Your task to perform on an android device: What's on my calendar tomorrow? Image 0: 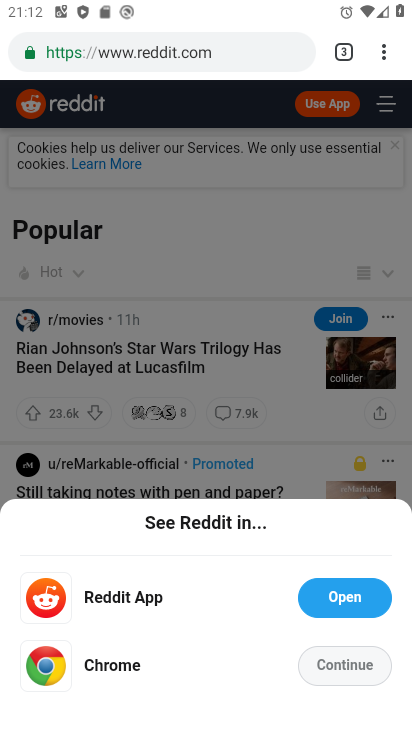
Step 0: press home button
Your task to perform on an android device: What's on my calendar tomorrow? Image 1: 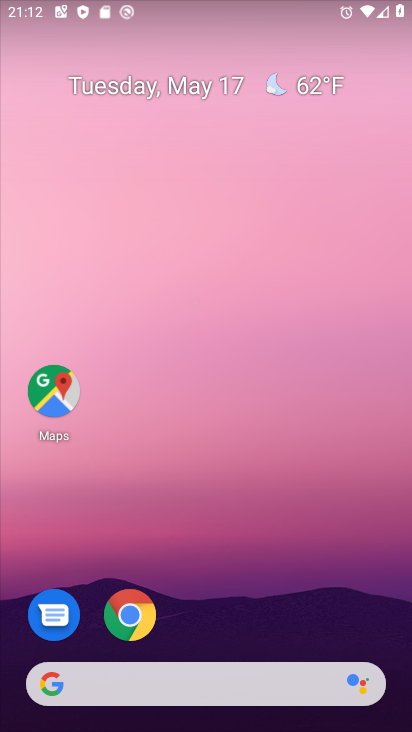
Step 1: drag from (255, 556) to (315, 42)
Your task to perform on an android device: What's on my calendar tomorrow? Image 2: 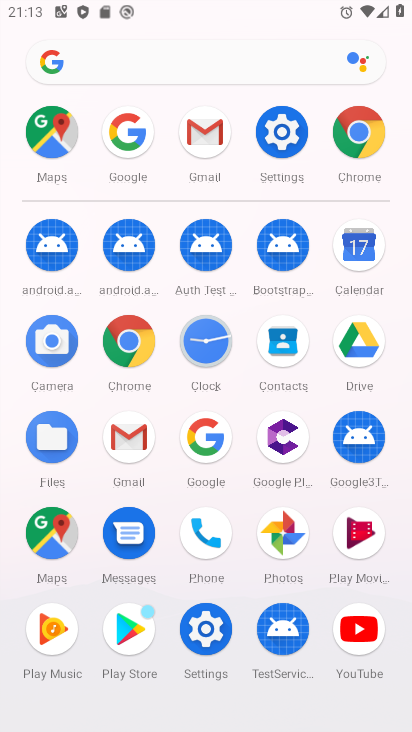
Step 2: click (361, 235)
Your task to perform on an android device: What's on my calendar tomorrow? Image 3: 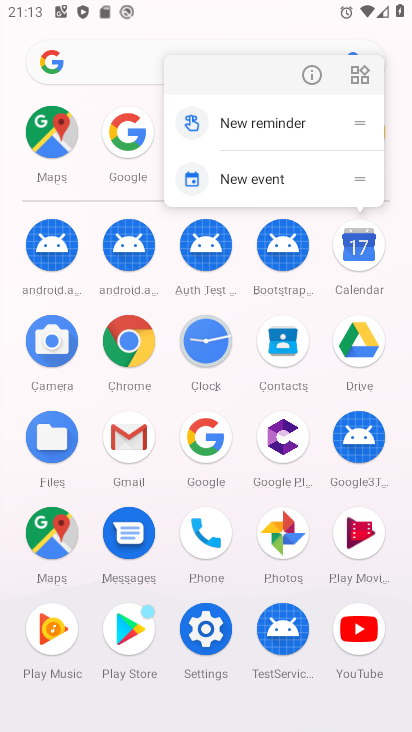
Step 3: click (358, 240)
Your task to perform on an android device: What's on my calendar tomorrow? Image 4: 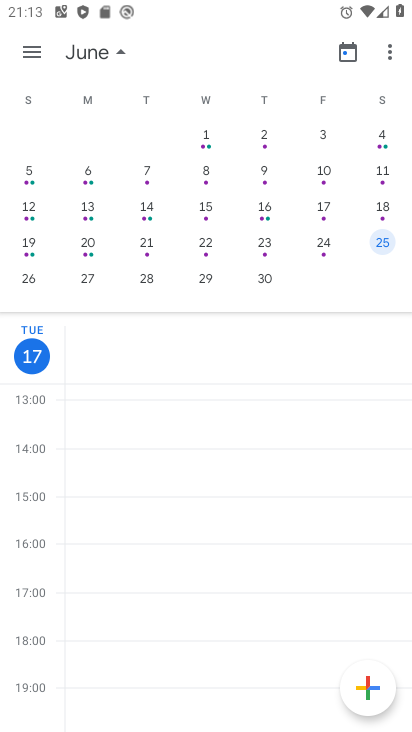
Step 4: drag from (34, 147) to (365, 177)
Your task to perform on an android device: What's on my calendar tomorrow? Image 5: 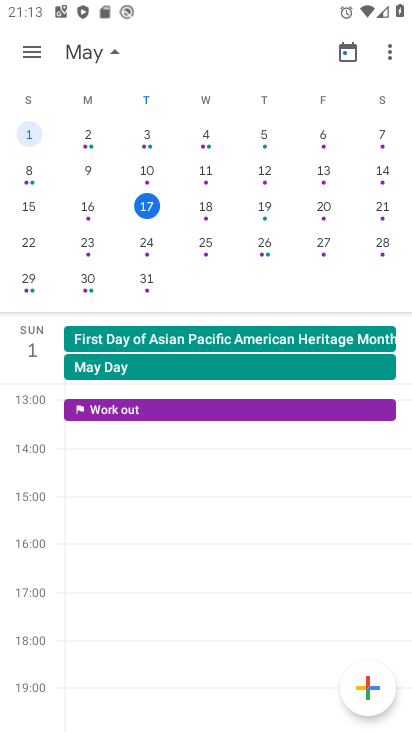
Step 5: click (263, 201)
Your task to perform on an android device: What's on my calendar tomorrow? Image 6: 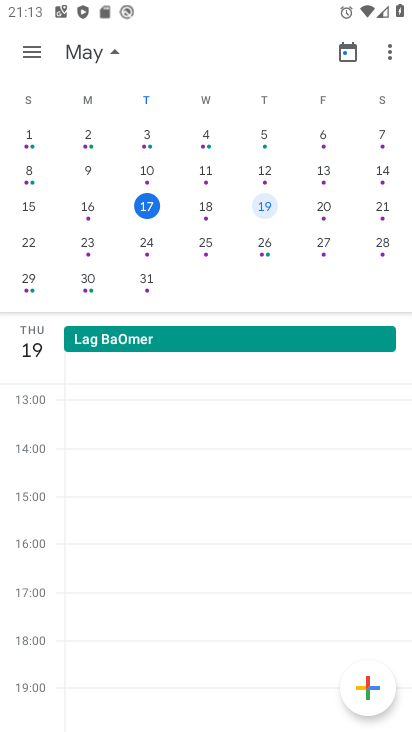
Step 6: task complete